Your task to perform on an android device: turn on priority inbox in the gmail app Image 0: 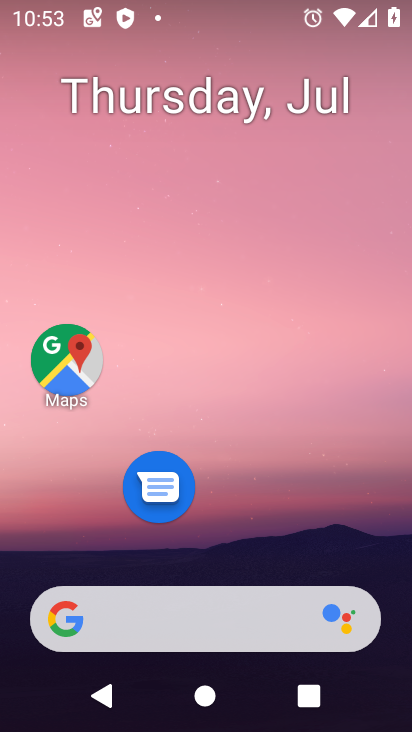
Step 0: press home button
Your task to perform on an android device: turn on priority inbox in the gmail app Image 1: 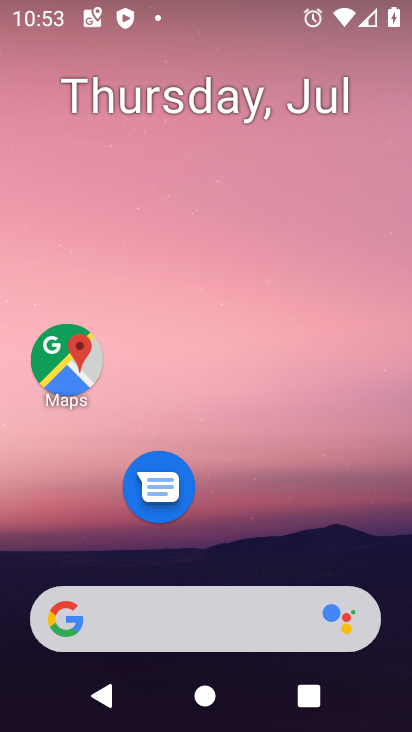
Step 1: drag from (263, 445) to (265, 149)
Your task to perform on an android device: turn on priority inbox in the gmail app Image 2: 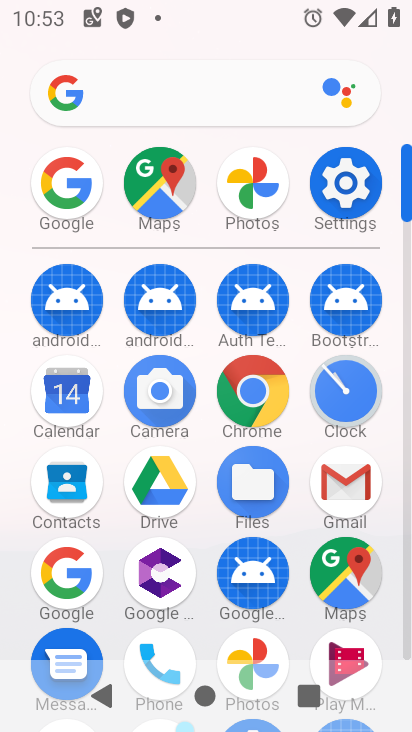
Step 2: drag from (270, 460) to (316, 132)
Your task to perform on an android device: turn on priority inbox in the gmail app Image 3: 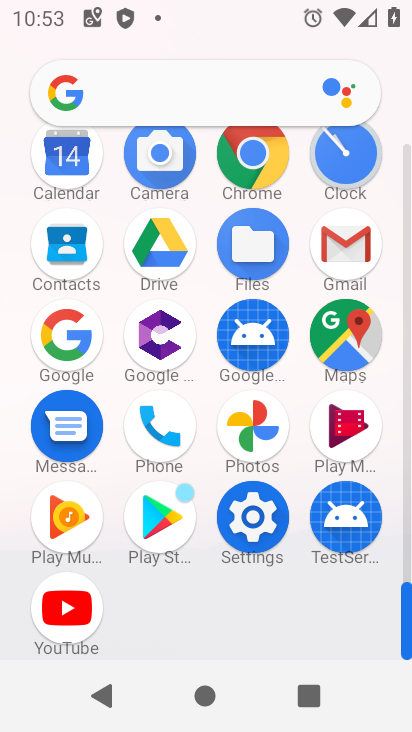
Step 3: click (339, 255)
Your task to perform on an android device: turn on priority inbox in the gmail app Image 4: 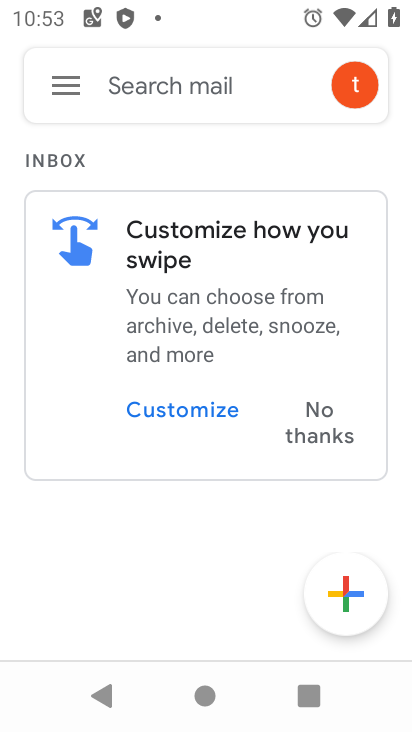
Step 4: click (64, 95)
Your task to perform on an android device: turn on priority inbox in the gmail app Image 5: 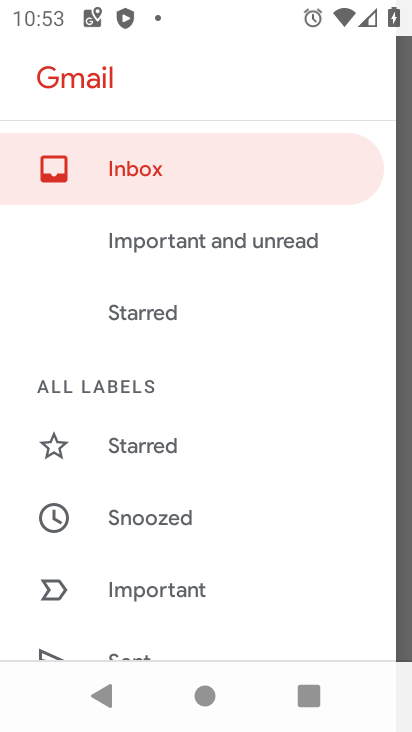
Step 5: drag from (183, 557) to (210, 164)
Your task to perform on an android device: turn on priority inbox in the gmail app Image 6: 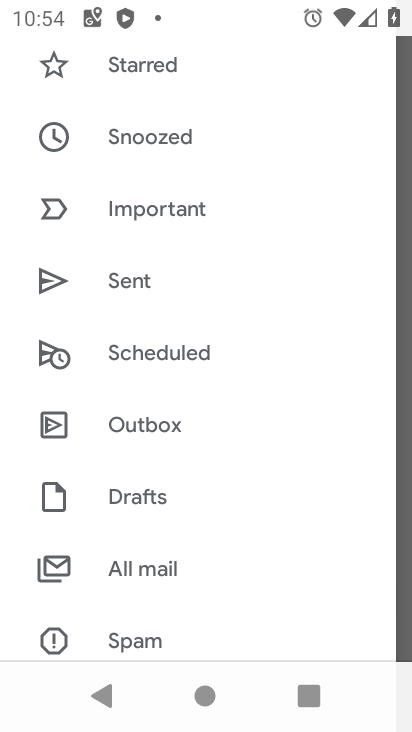
Step 6: drag from (190, 537) to (199, 71)
Your task to perform on an android device: turn on priority inbox in the gmail app Image 7: 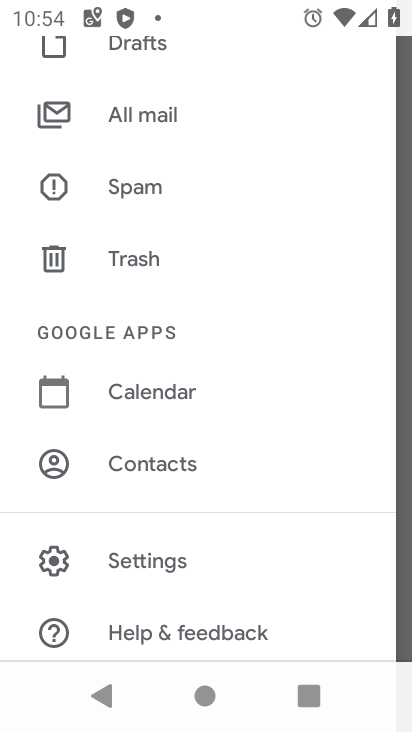
Step 7: click (189, 562)
Your task to perform on an android device: turn on priority inbox in the gmail app Image 8: 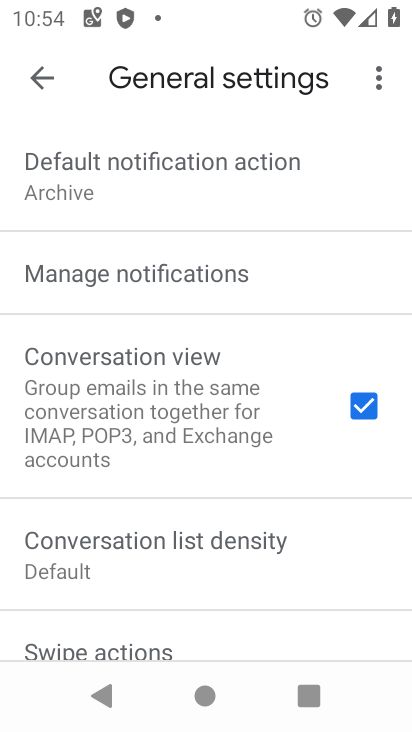
Step 8: click (40, 90)
Your task to perform on an android device: turn on priority inbox in the gmail app Image 9: 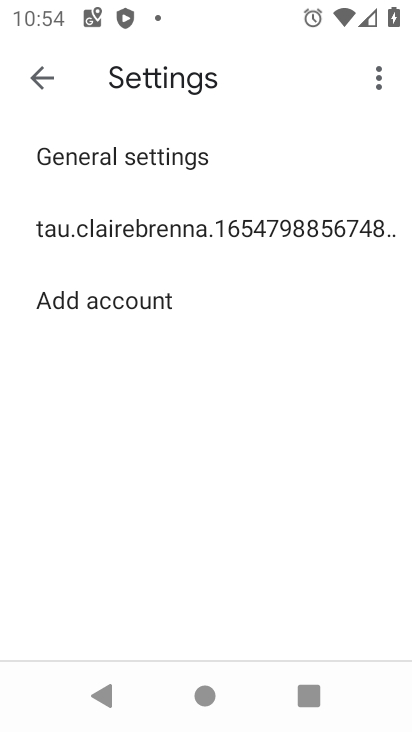
Step 9: click (192, 240)
Your task to perform on an android device: turn on priority inbox in the gmail app Image 10: 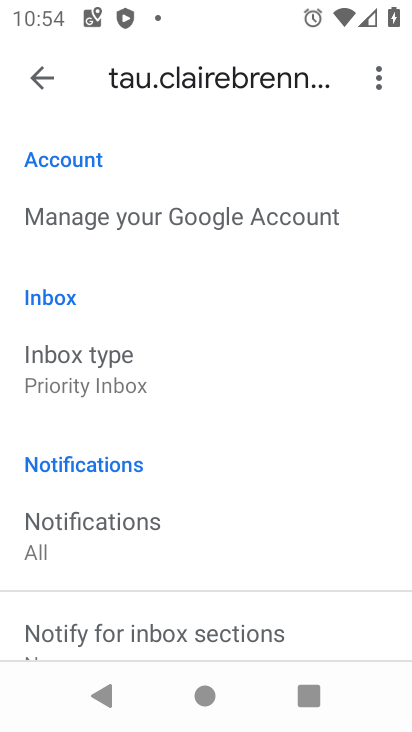
Step 10: click (137, 375)
Your task to perform on an android device: turn on priority inbox in the gmail app Image 11: 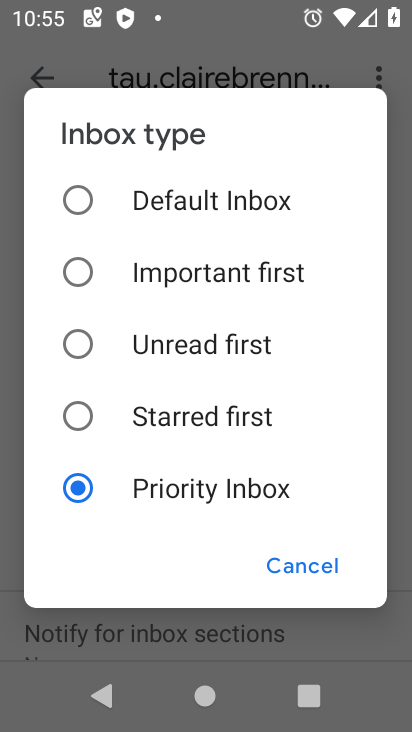
Step 11: task complete